Your task to perform on an android device: Open settings on Google Maps Image 0: 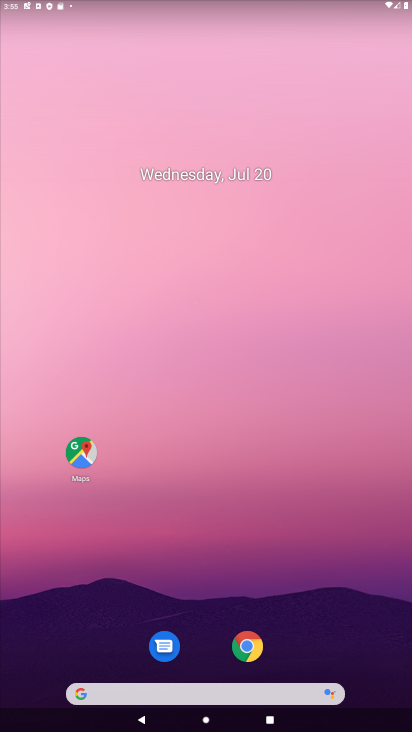
Step 0: click (85, 472)
Your task to perform on an android device: Open settings on Google Maps Image 1: 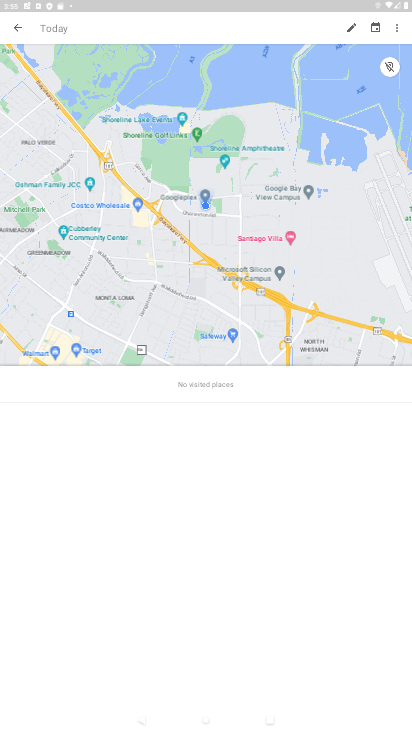
Step 1: click (25, 30)
Your task to perform on an android device: Open settings on Google Maps Image 2: 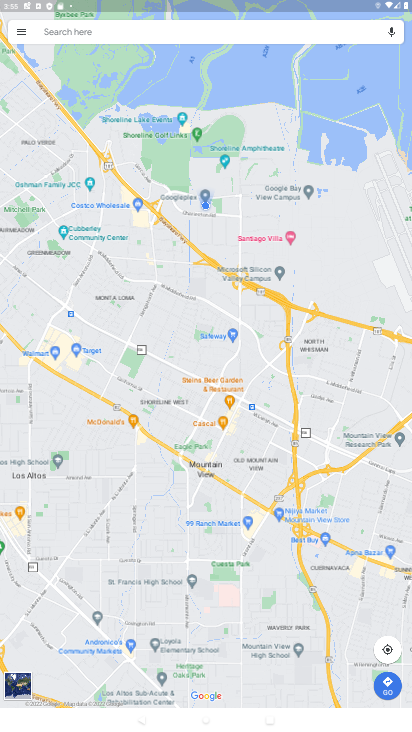
Step 2: click (25, 33)
Your task to perform on an android device: Open settings on Google Maps Image 3: 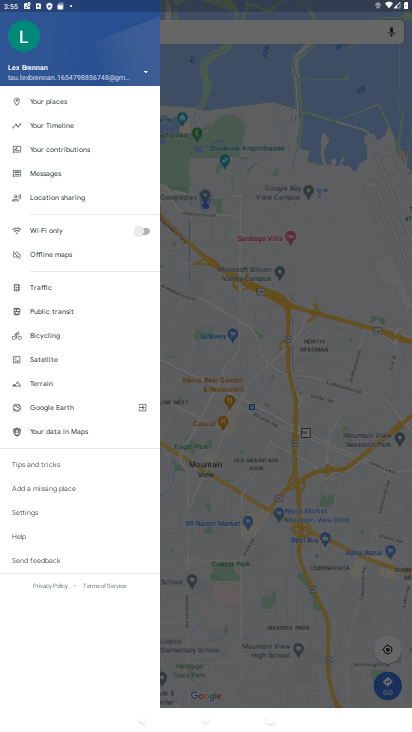
Step 3: click (40, 517)
Your task to perform on an android device: Open settings on Google Maps Image 4: 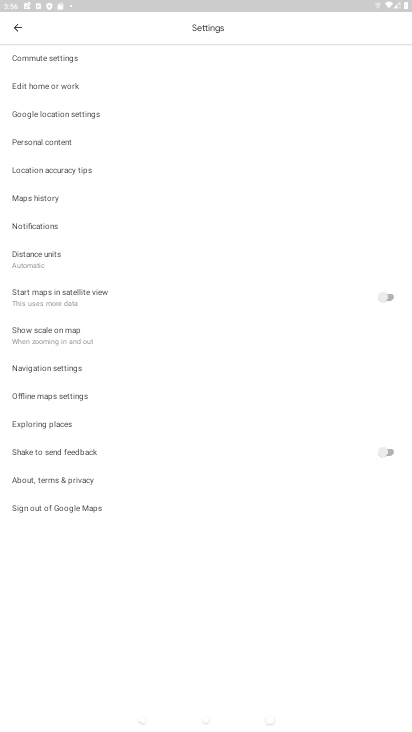
Step 4: task complete